Your task to perform on an android device: set the stopwatch Image 0: 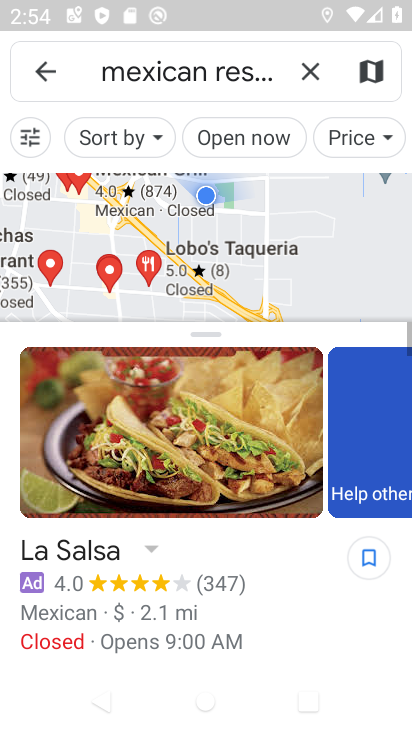
Step 0: press home button
Your task to perform on an android device: set the stopwatch Image 1: 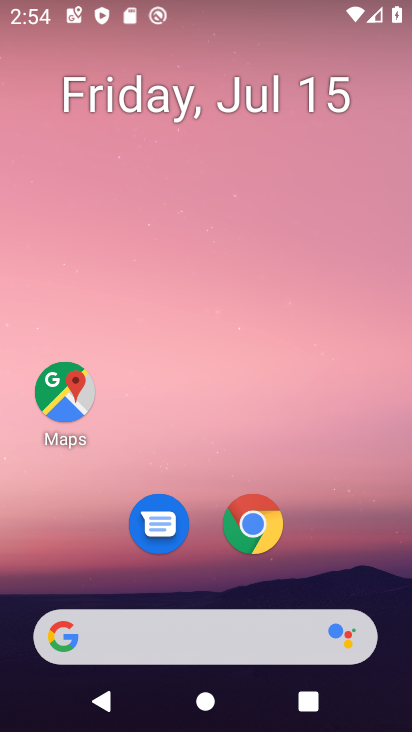
Step 1: drag from (193, 647) to (291, 63)
Your task to perform on an android device: set the stopwatch Image 2: 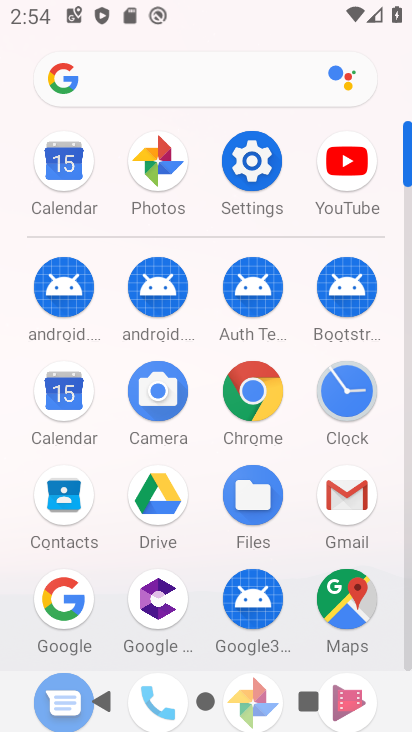
Step 2: click (346, 401)
Your task to perform on an android device: set the stopwatch Image 3: 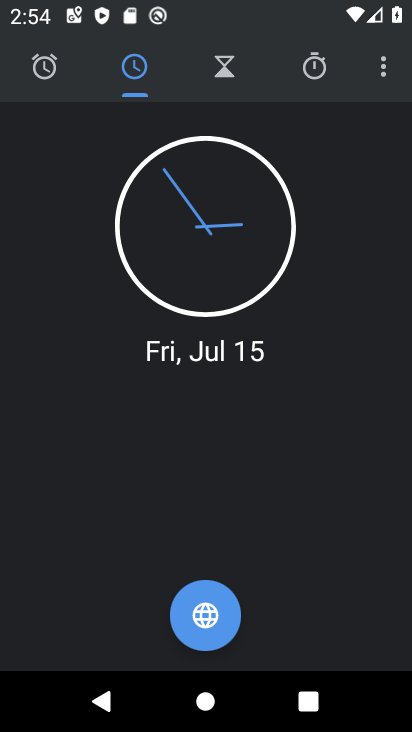
Step 3: click (308, 56)
Your task to perform on an android device: set the stopwatch Image 4: 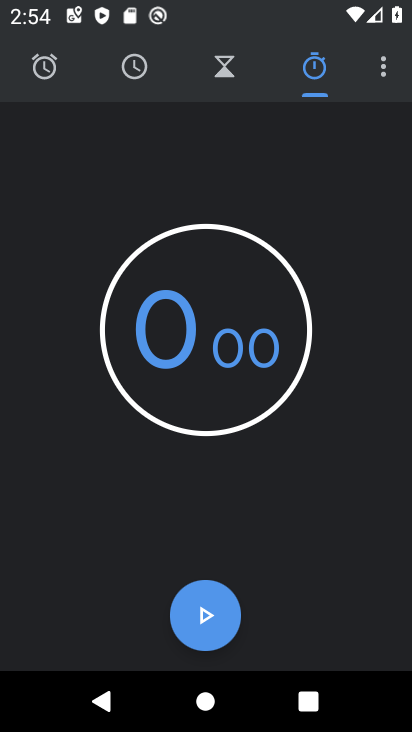
Step 4: click (214, 333)
Your task to perform on an android device: set the stopwatch Image 5: 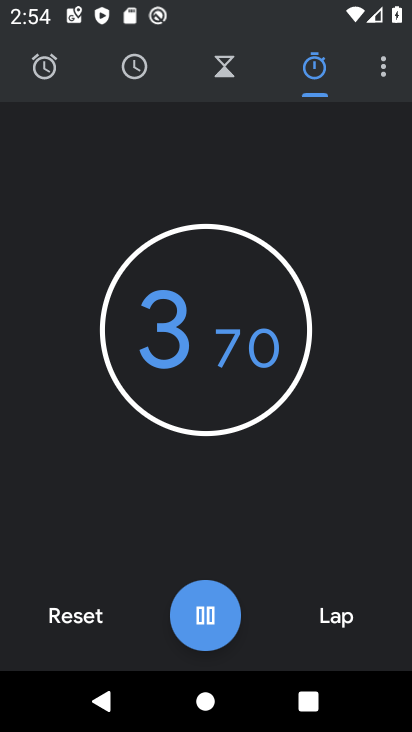
Step 5: click (214, 333)
Your task to perform on an android device: set the stopwatch Image 6: 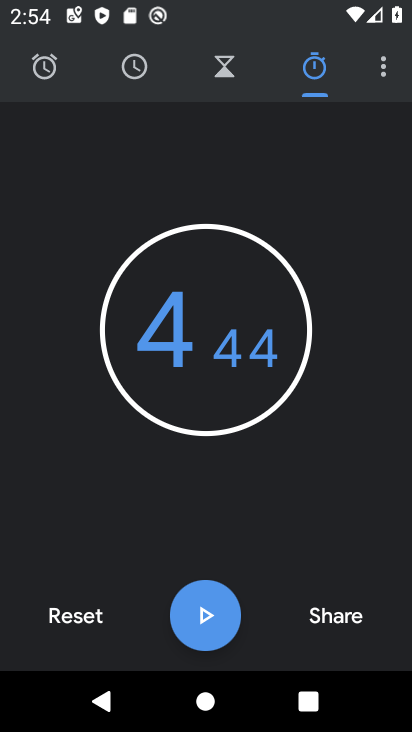
Step 6: task complete